Your task to perform on an android device: Go to Amazon Image 0: 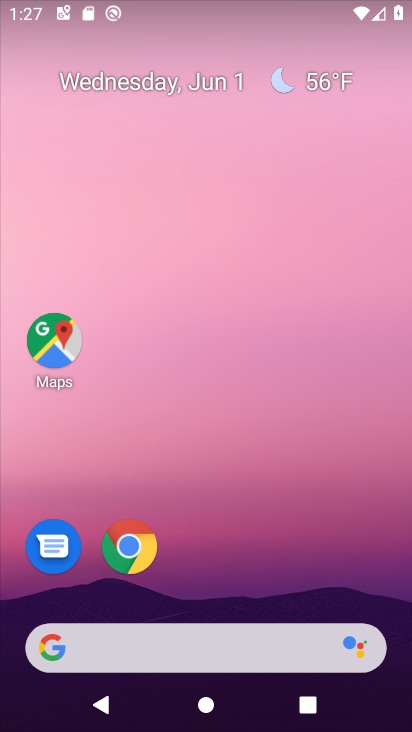
Step 0: click (142, 551)
Your task to perform on an android device: Go to Amazon Image 1: 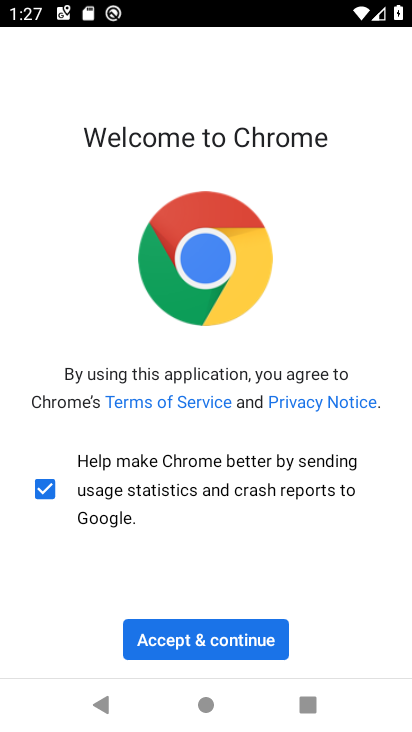
Step 1: click (251, 641)
Your task to perform on an android device: Go to Amazon Image 2: 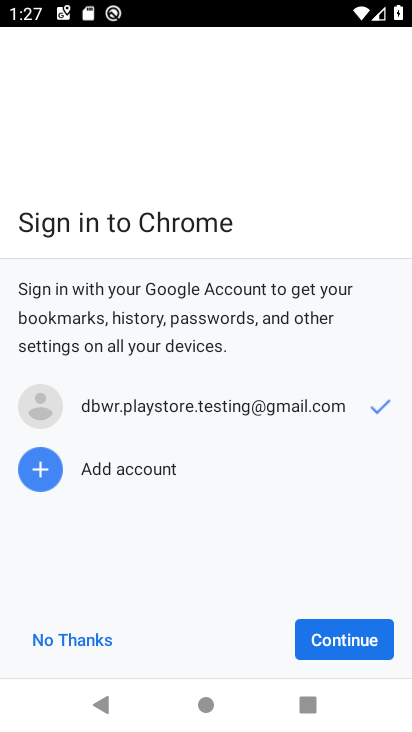
Step 2: click (319, 656)
Your task to perform on an android device: Go to Amazon Image 3: 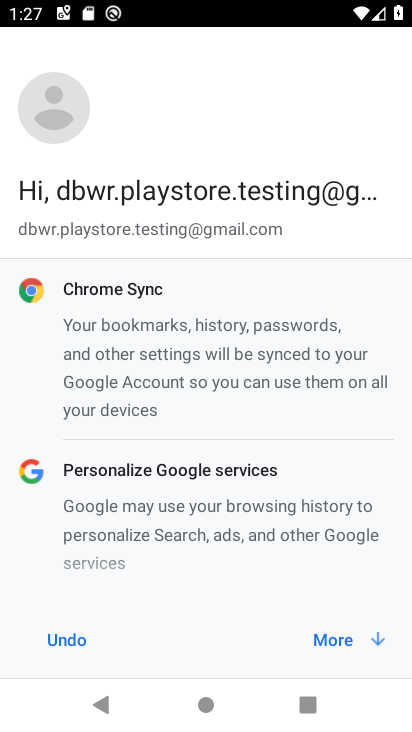
Step 3: click (322, 654)
Your task to perform on an android device: Go to Amazon Image 4: 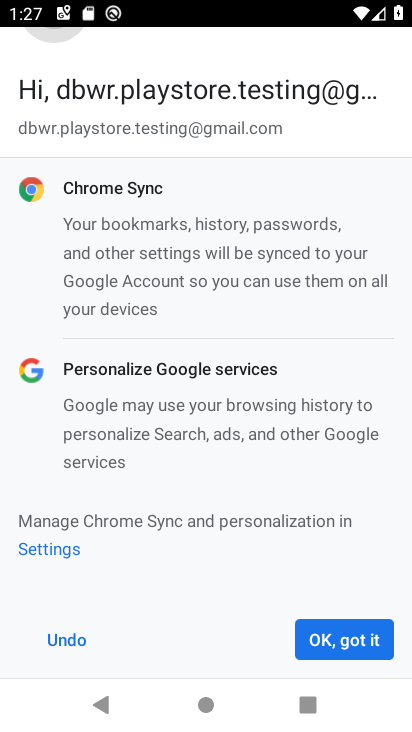
Step 4: click (322, 654)
Your task to perform on an android device: Go to Amazon Image 5: 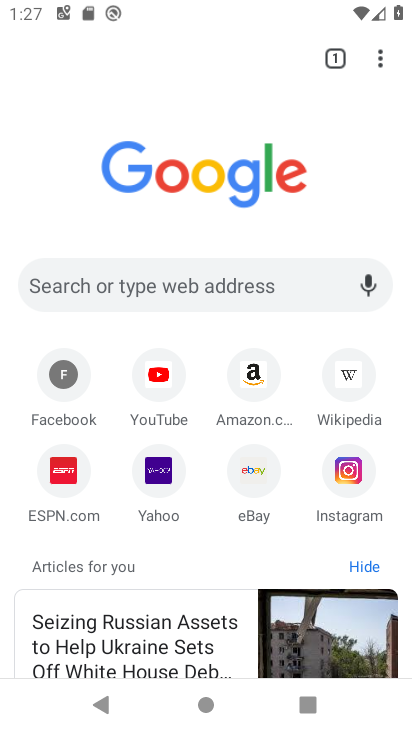
Step 5: click (255, 390)
Your task to perform on an android device: Go to Amazon Image 6: 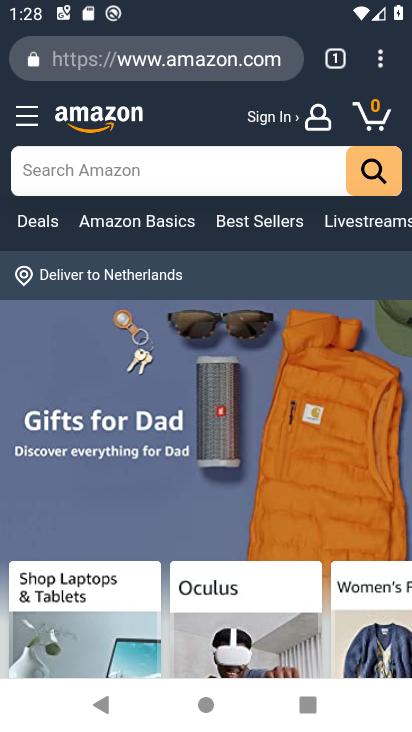
Step 6: task complete